Your task to perform on an android device: Go to network settings Image 0: 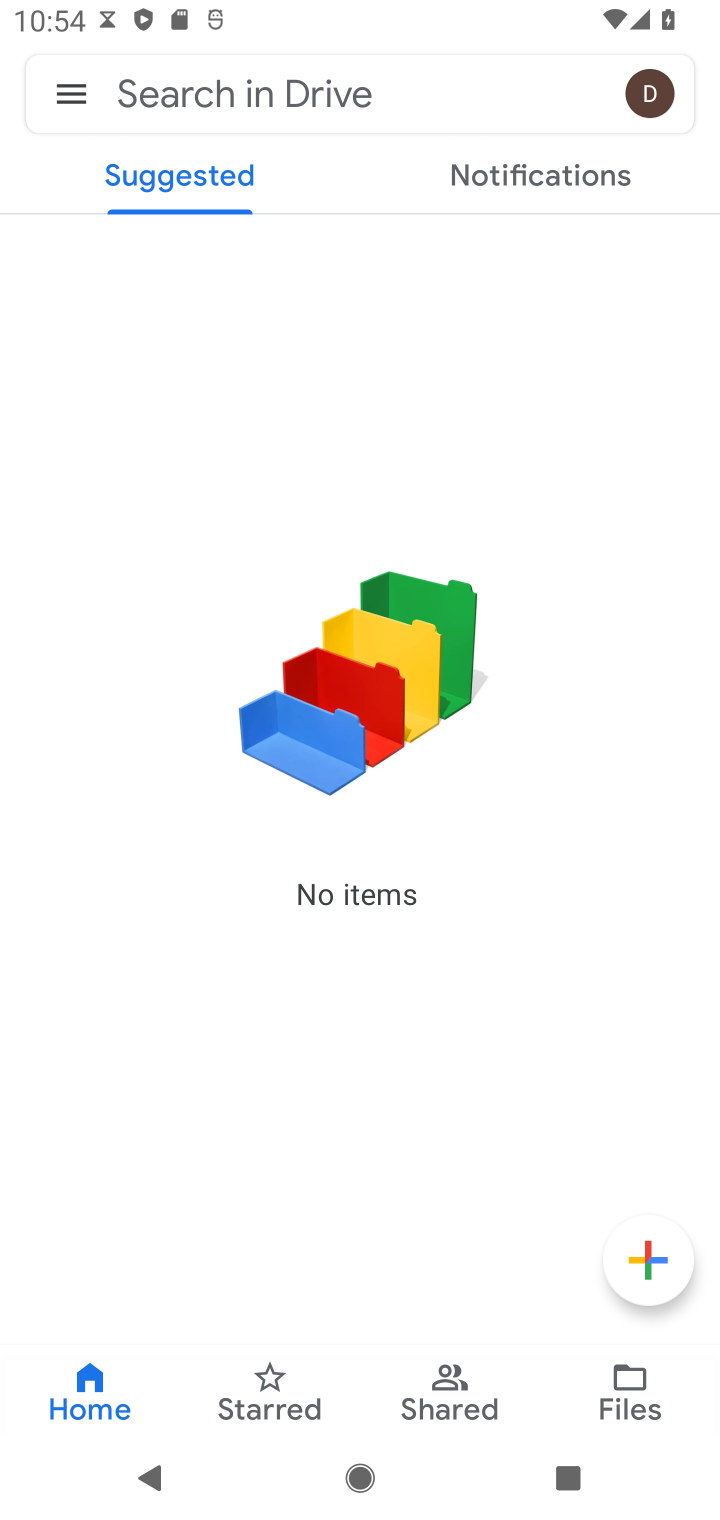
Step 0: press back button
Your task to perform on an android device: Go to network settings Image 1: 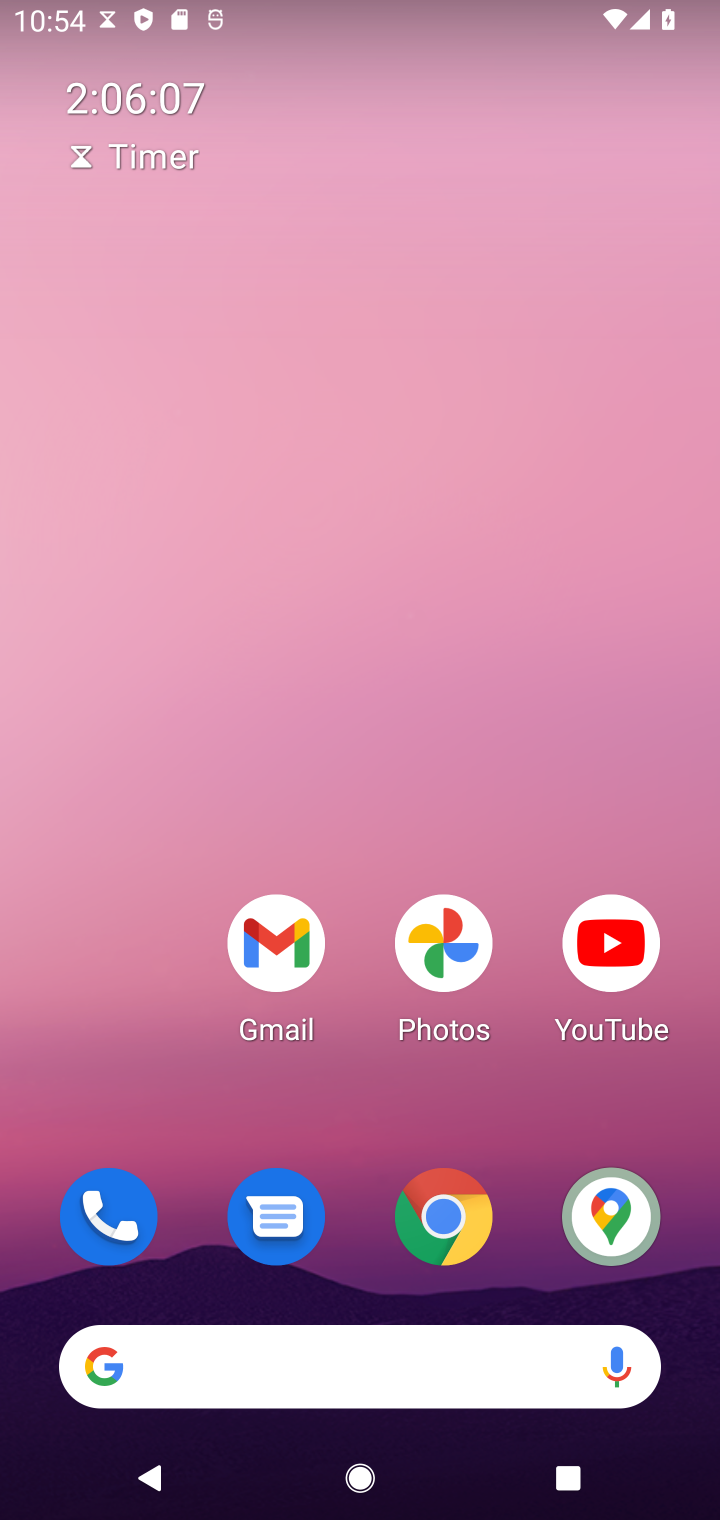
Step 1: drag from (133, 1094) to (306, 29)
Your task to perform on an android device: Go to network settings Image 2: 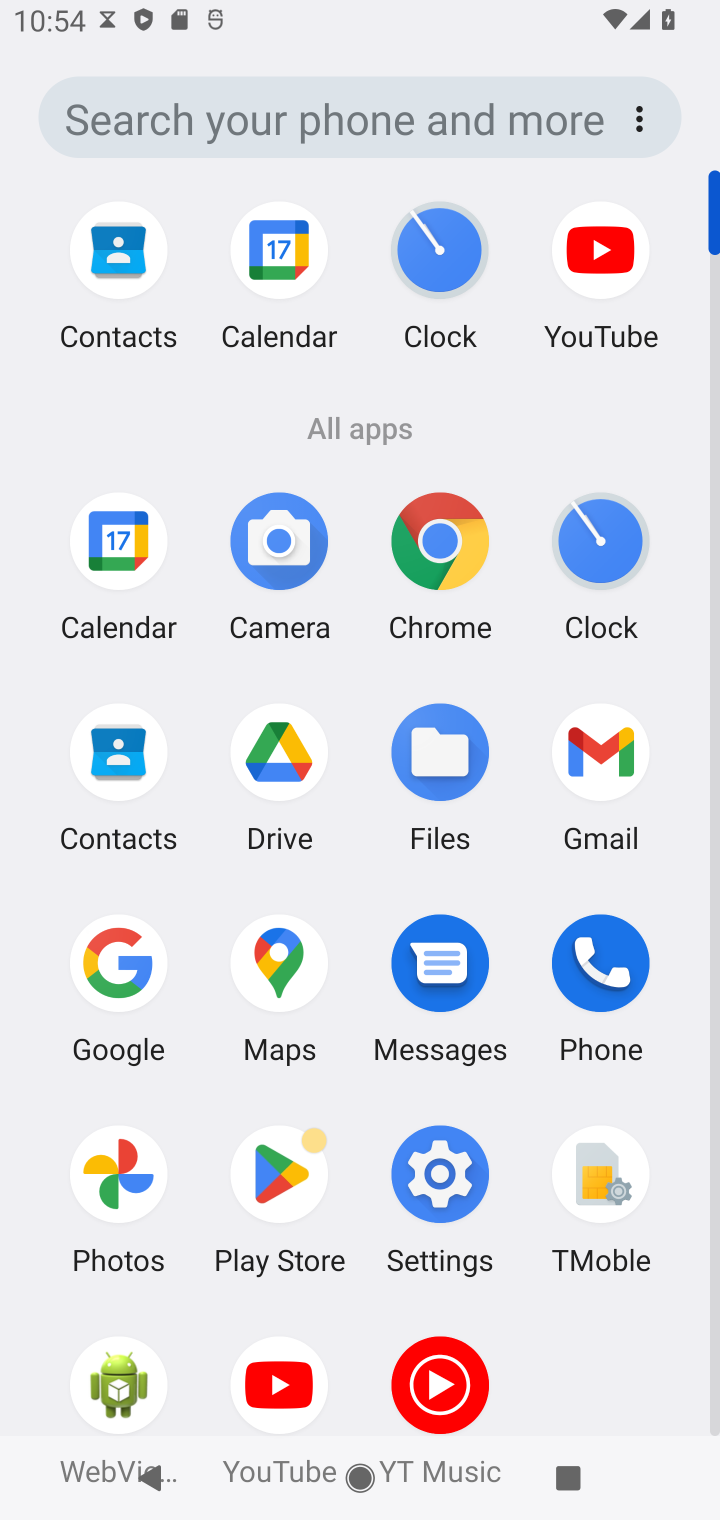
Step 2: click (440, 1161)
Your task to perform on an android device: Go to network settings Image 3: 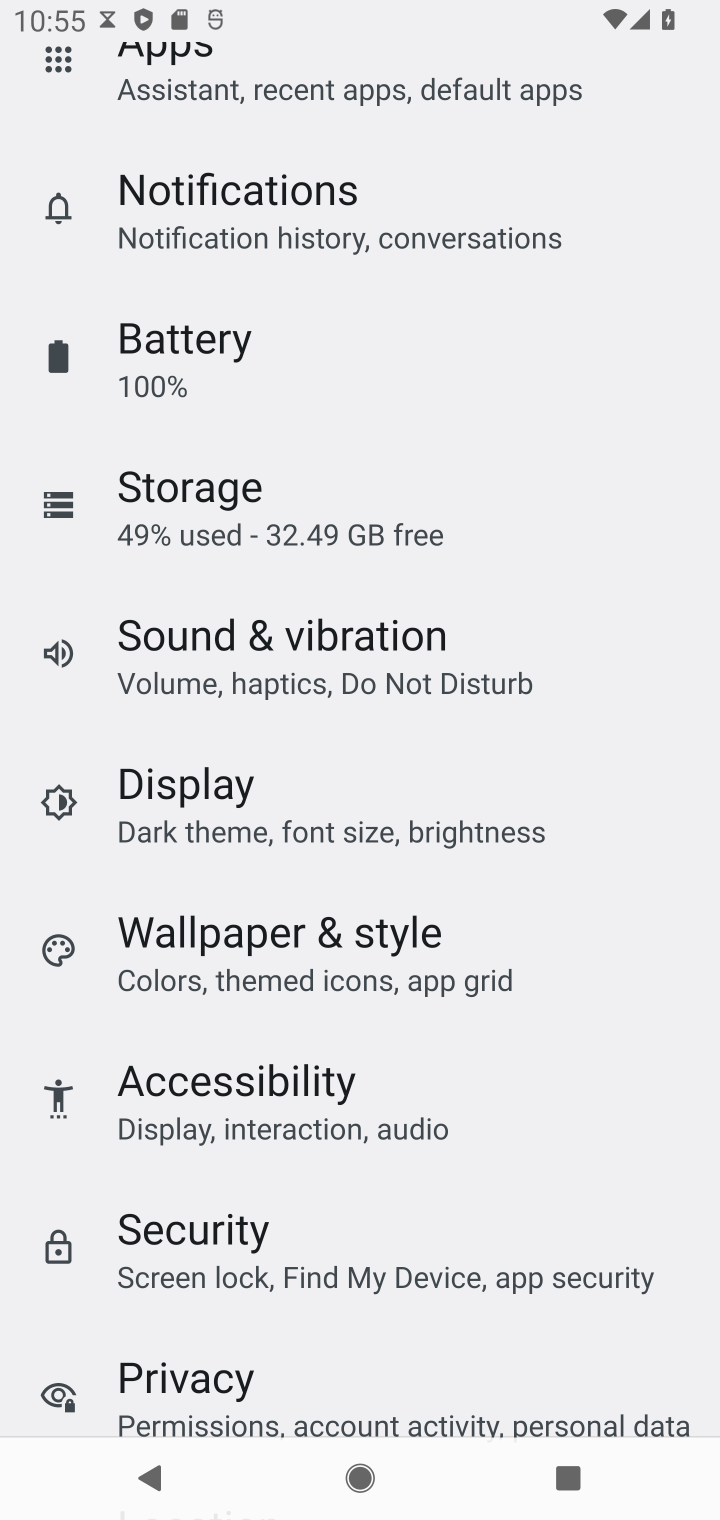
Step 3: drag from (440, 446) to (357, 1482)
Your task to perform on an android device: Go to network settings Image 4: 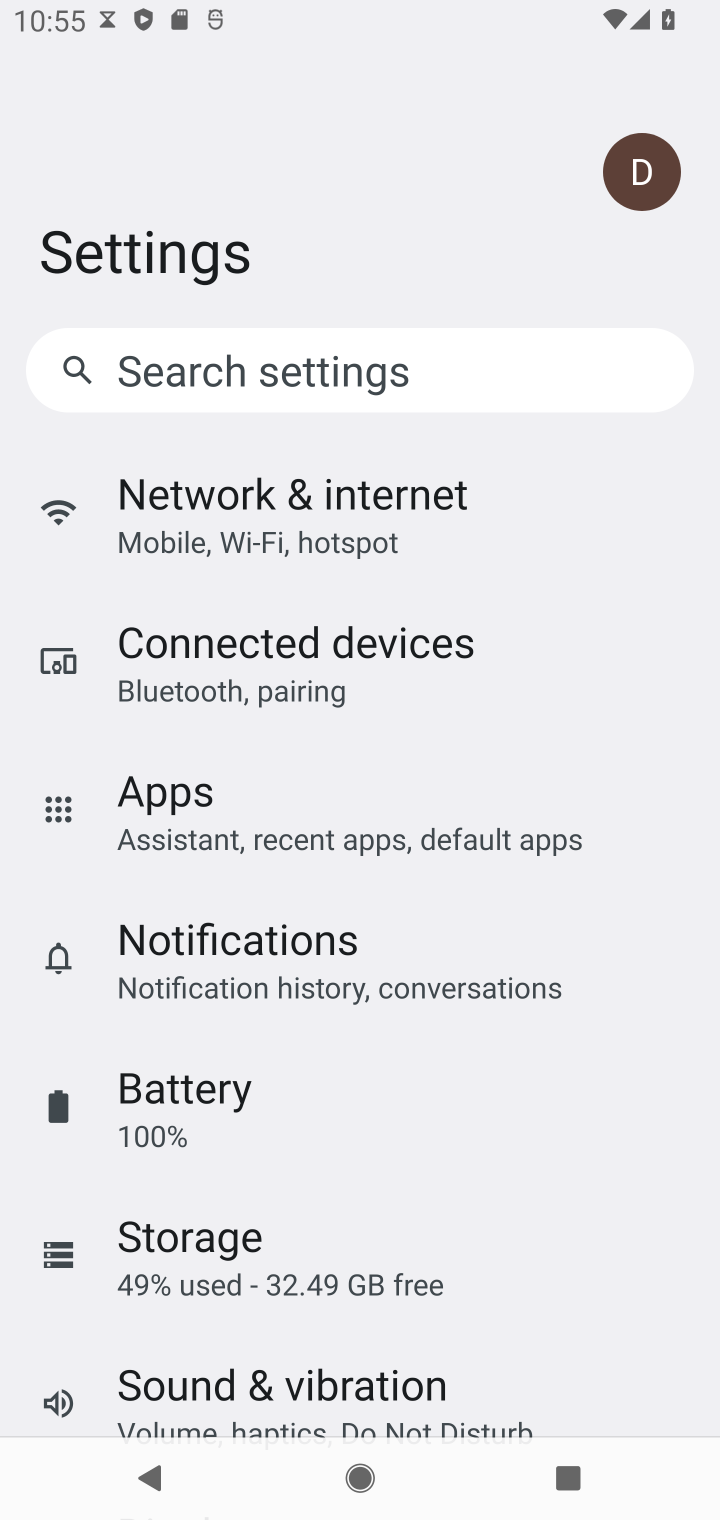
Step 4: click (302, 490)
Your task to perform on an android device: Go to network settings Image 5: 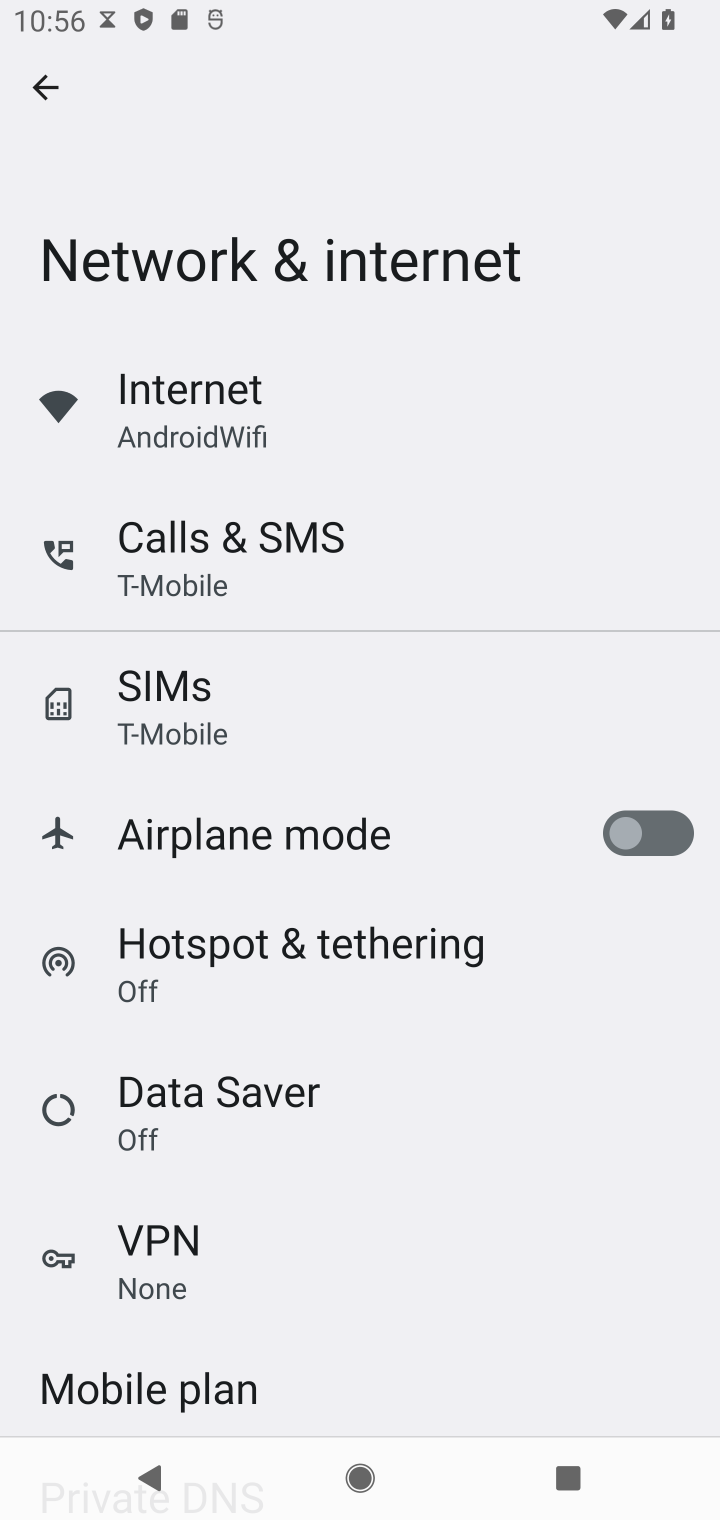
Step 5: task complete